Your task to perform on an android device: see tabs open on other devices in the chrome app Image 0: 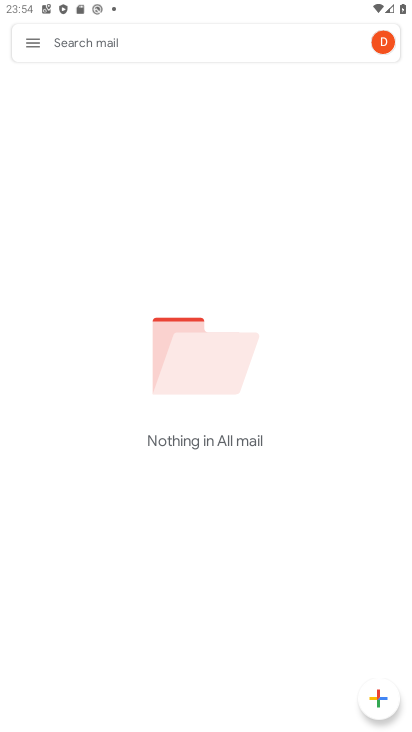
Step 0: press home button
Your task to perform on an android device: see tabs open on other devices in the chrome app Image 1: 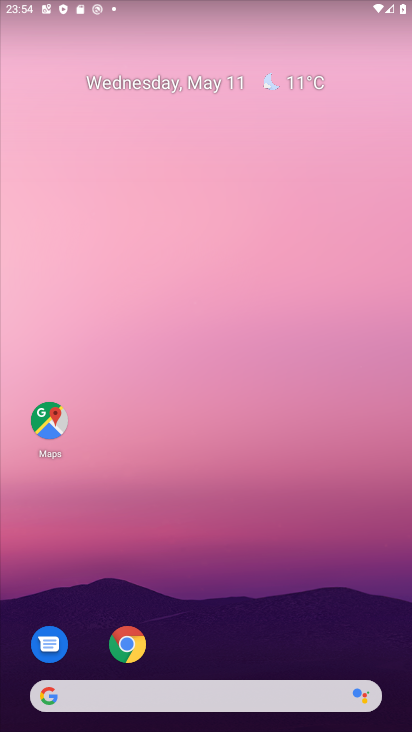
Step 1: click (130, 638)
Your task to perform on an android device: see tabs open on other devices in the chrome app Image 2: 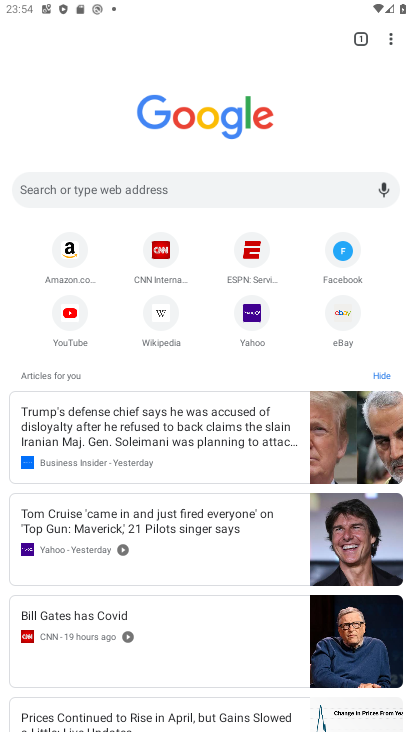
Step 2: click (389, 35)
Your task to perform on an android device: see tabs open on other devices in the chrome app Image 3: 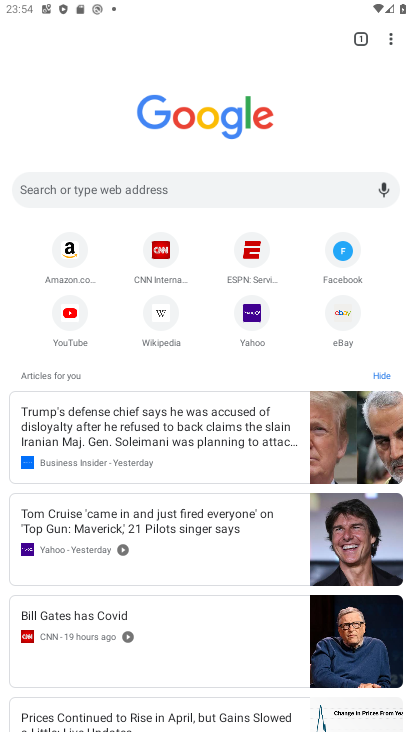
Step 3: click (392, 38)
Your task to perform on an android device: see tabs open on other devices in the chrome app Image 4: 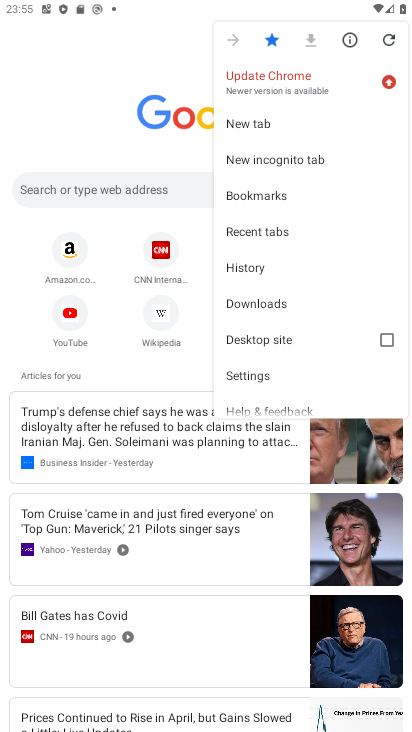
Step 4: click (289, 230)
Your task to perform on an android device: see tabs open on other devices in the chrome app Image 5: 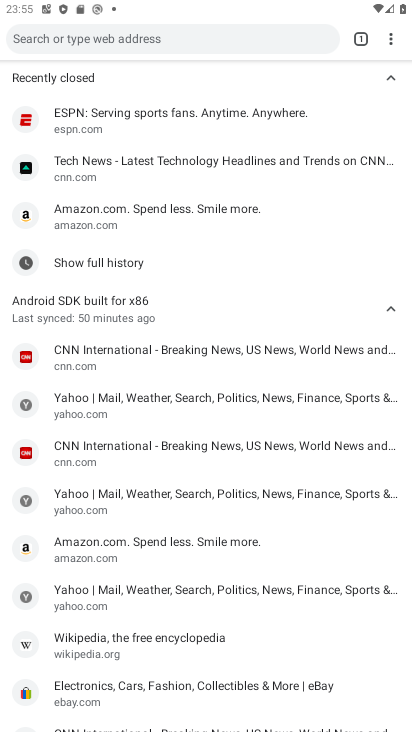
Step 5: task complete